Your task to perform on an android device: Is it going to rain this weekend? Image 0: 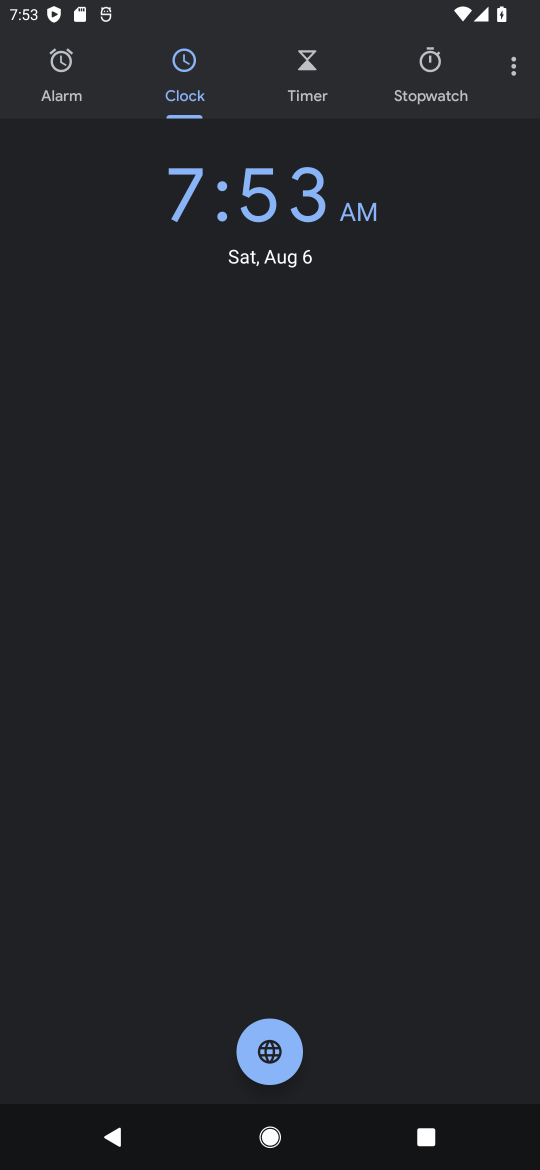
Step 0: press home button
Your task to perform on an android device: Is it going to rain this weekend? Image 1: 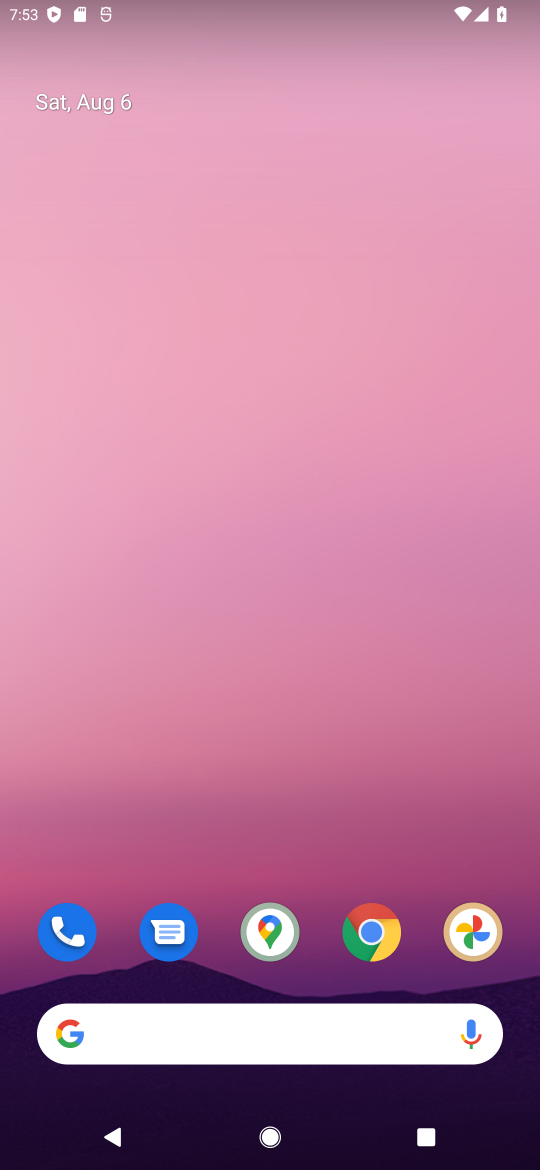
Step 1: click (185, 1037)
Your task to perform on an android device: Is it going to rain this weekend? Image 2: 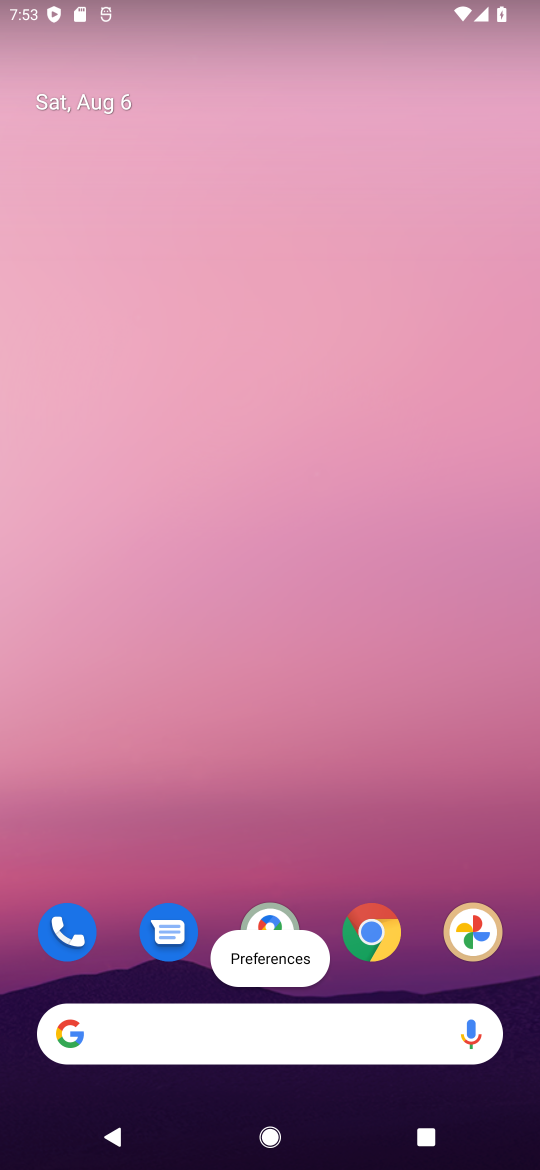
Step 2: click (233, 1024)
Your task to perform on an android device: Is it going to rain this weekend? Image 3: 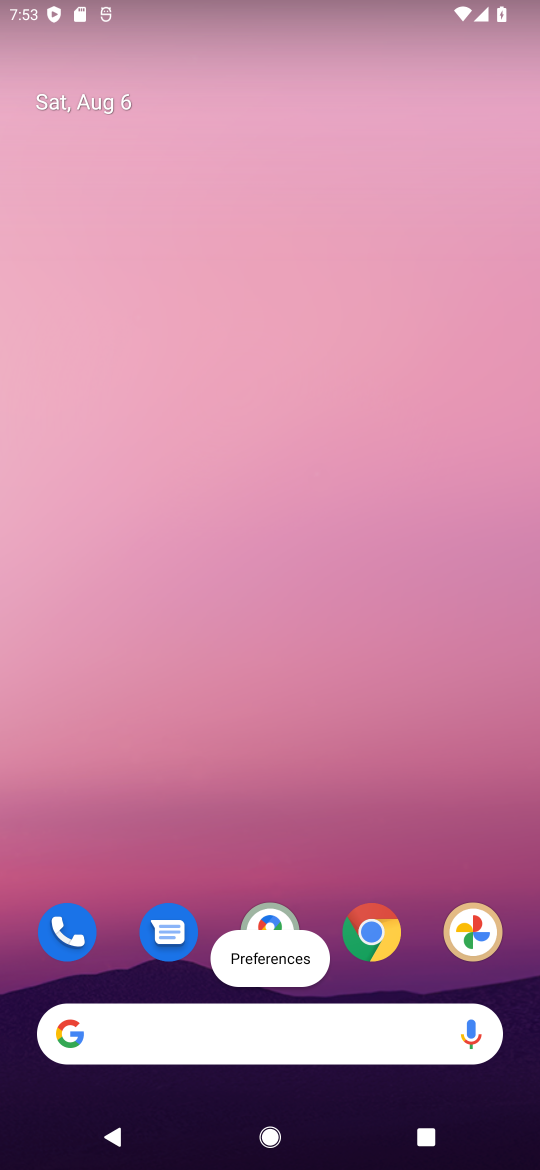
Step 3: click (233, 1025)
Your task to perform on an android device: Is it going to rain this weekend? Image 4: 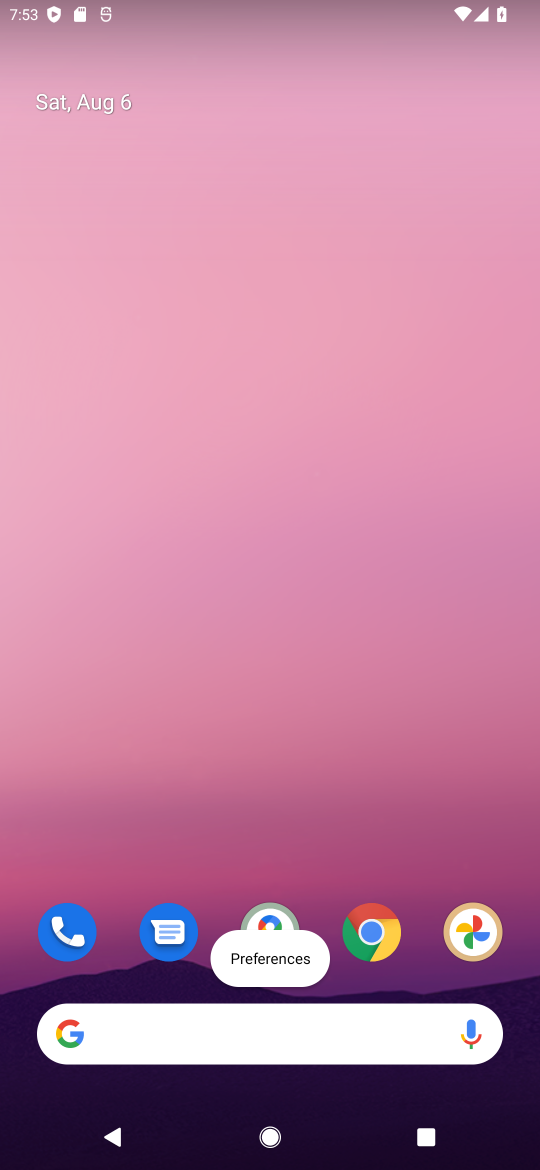
Step 4: click (209, 1037)
Your task to perform on an android device: Is it going to rain this weekend? Image 5: 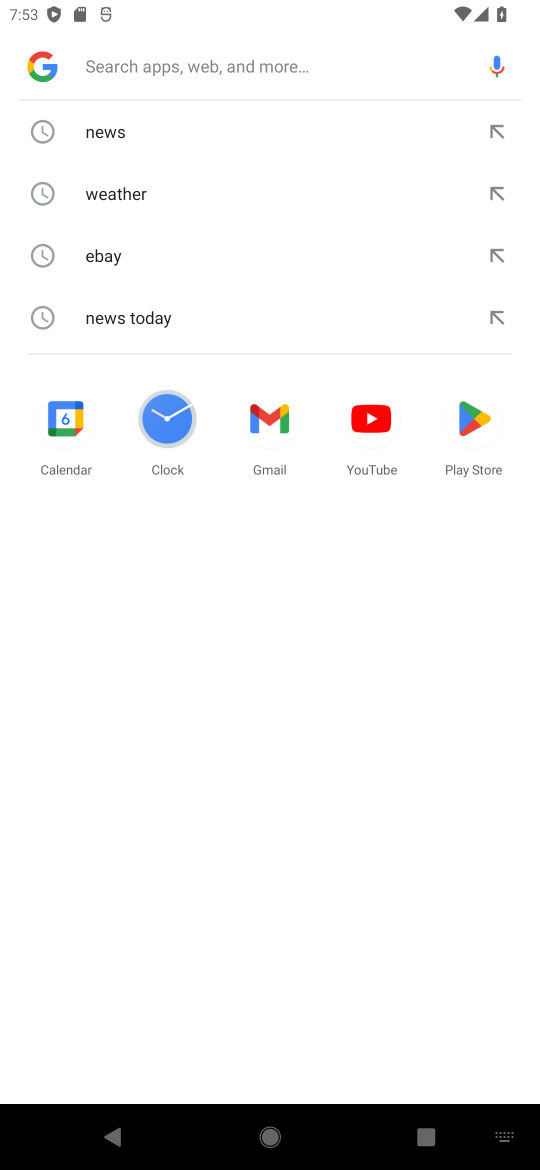
Step 5: click (110, 192)
Your task to perform on an android device: Is it going to rain this weekend? Image 6: 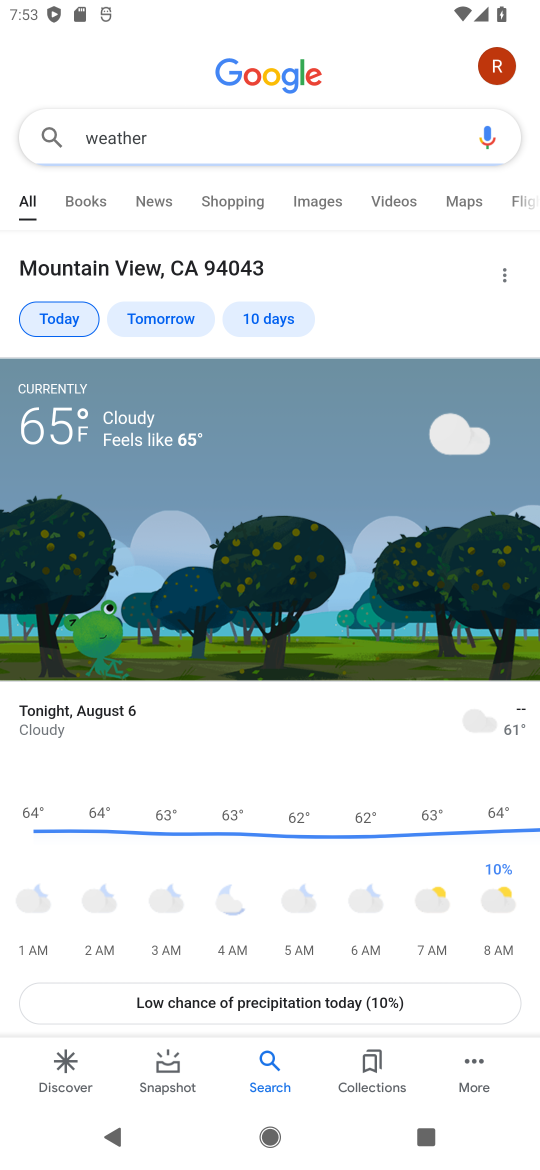
Step 6: click (264, 317)
Your task to perform on an android device: Is it going to rain this weekend? Image 7: 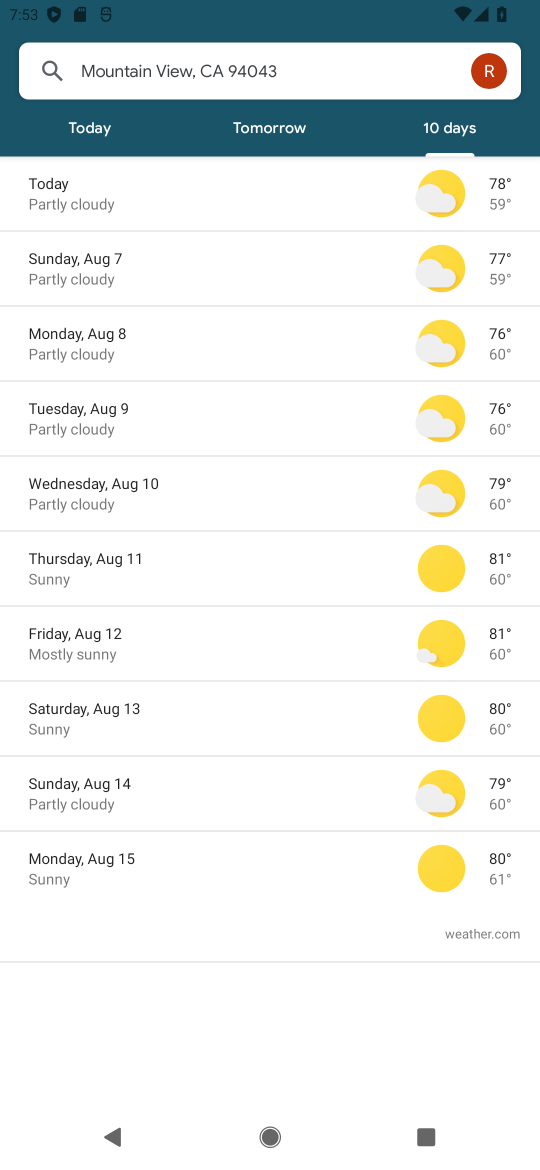
Step 7: click (140, 208)
Your task to perform on an android device: Is it going to rain this weekend? Image 8: 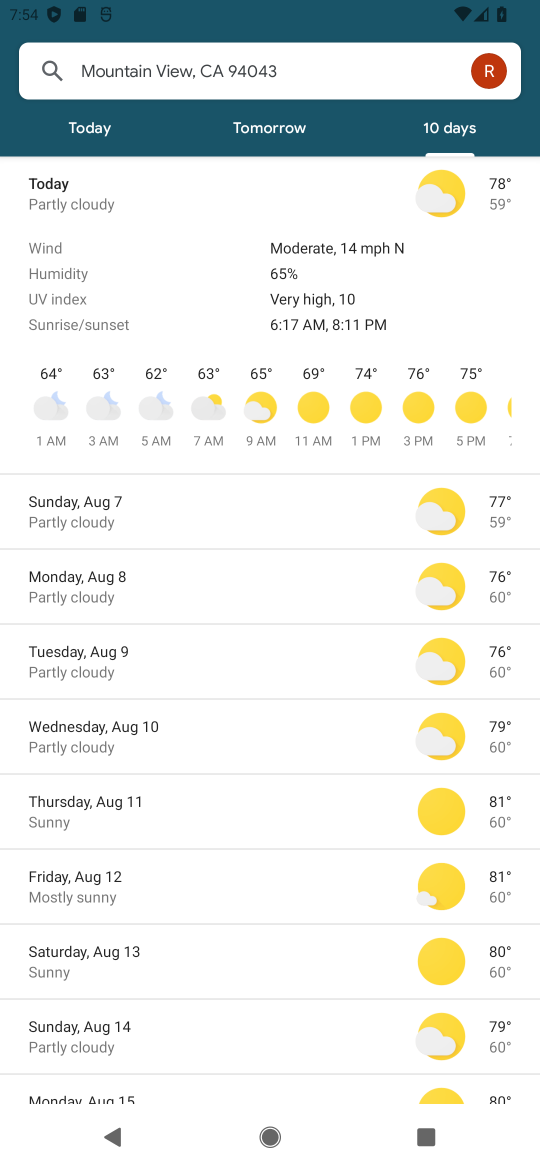
Step 8: task complete